Your task to perform on an android device: Open location settings Image 0: 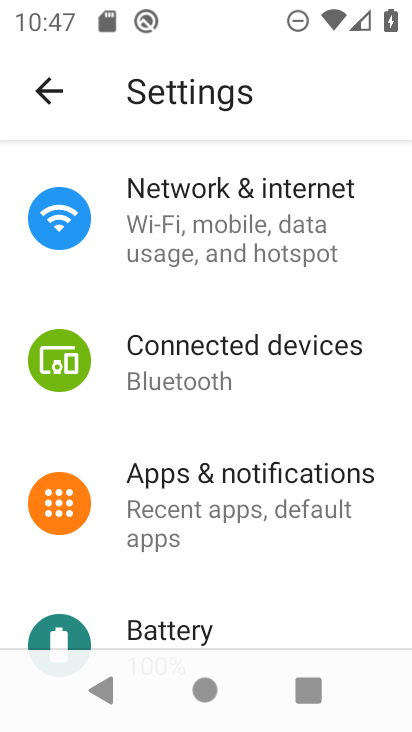
Step 0: drag from (270, 575) to (224, 201)
Your task to perform on an android device: Open location settings Image 1: 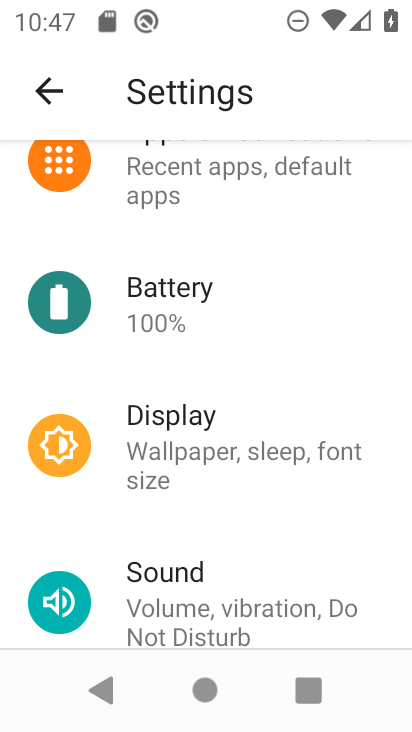
Step 1: drag from (248, 524) to (270, 164)
Your task to perform on an android device: Open location settings Image 2: 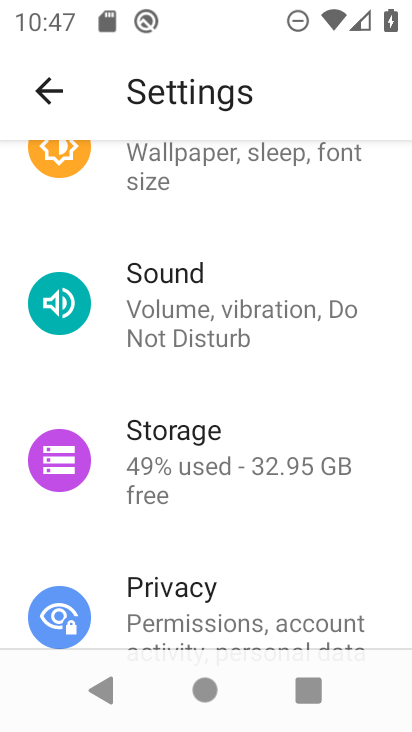
Step 2: drag from (213, 526) to (270, 288)
Your task to perform on an android device: Open location settings Image 3: 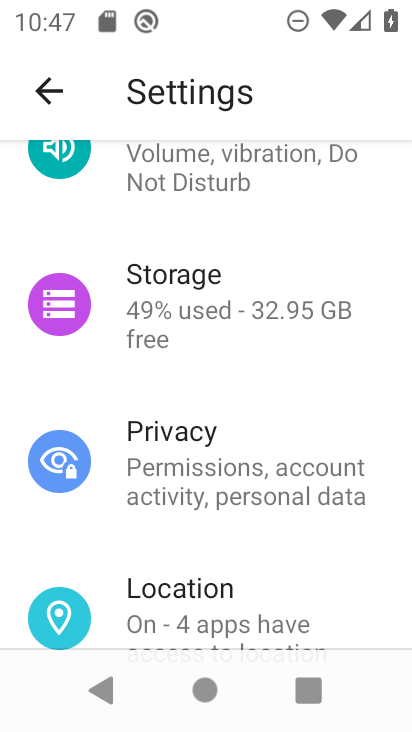
Step 3: click (211, 621)
Your task to perform on an android device: Open location settings Image 4: 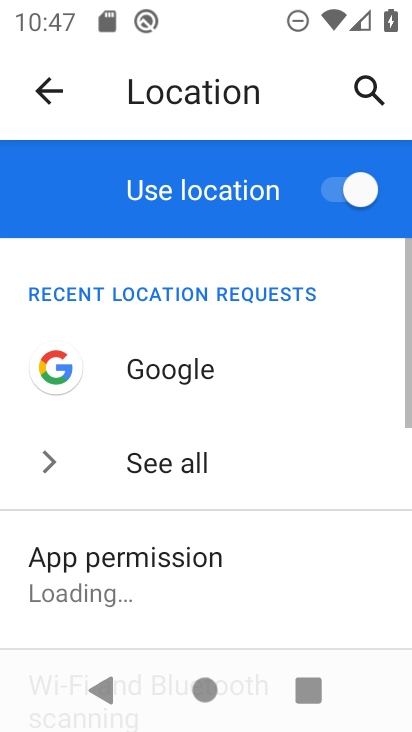
Step 4: task complete